Your task to perform on an android device: Install the Wikipedia app Image 0: 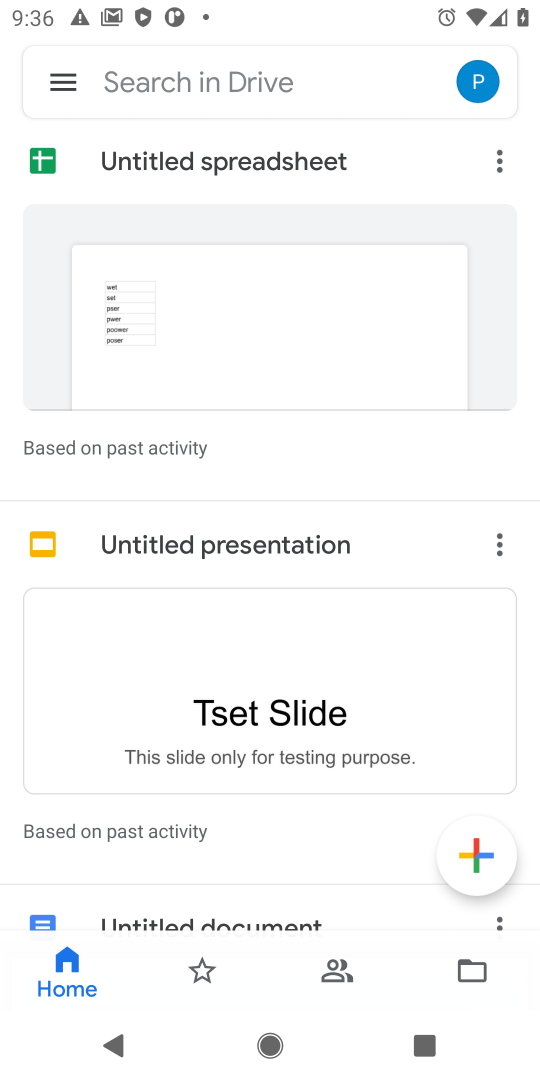
Step 0: press home button
Your task to perform on an android device: Install the Wikipedia app Image 1: 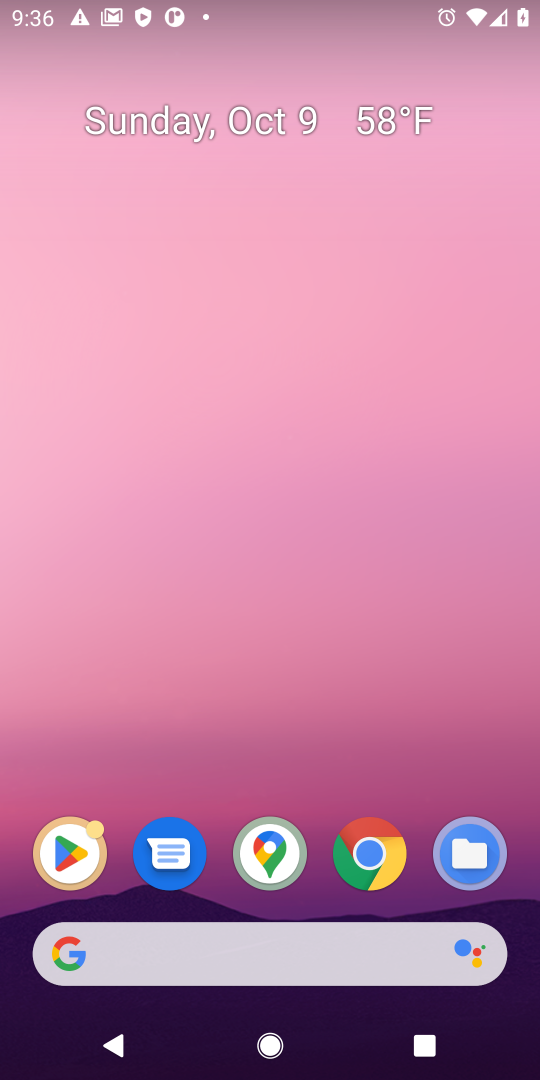
Step 1: click (379, 862)
Your task to perform on an android device: Install the Wikipedia app Image 2: 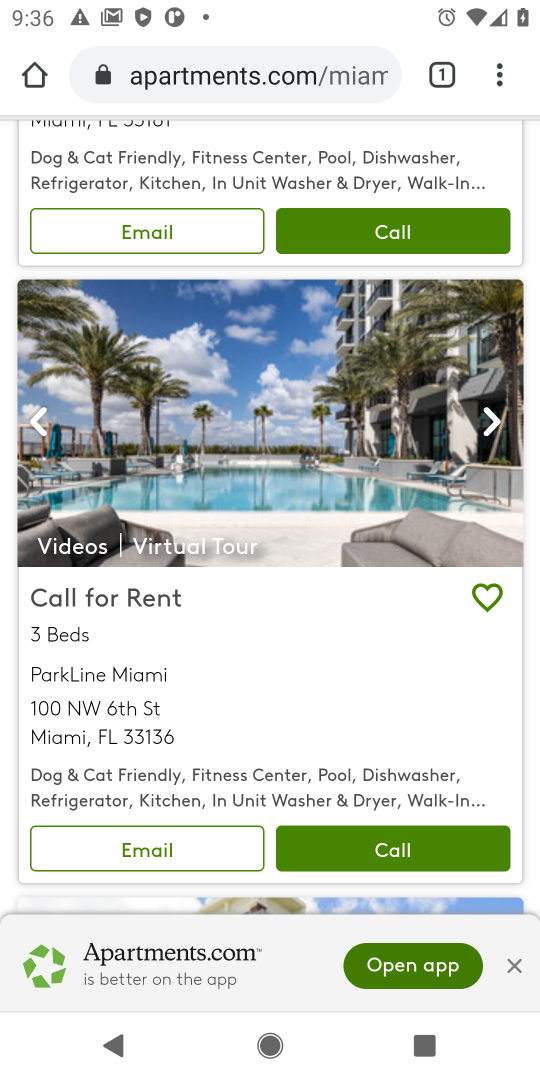
Step 2: press home button
Your task to perform on an android device: Install the Wikipedia app Image 3: 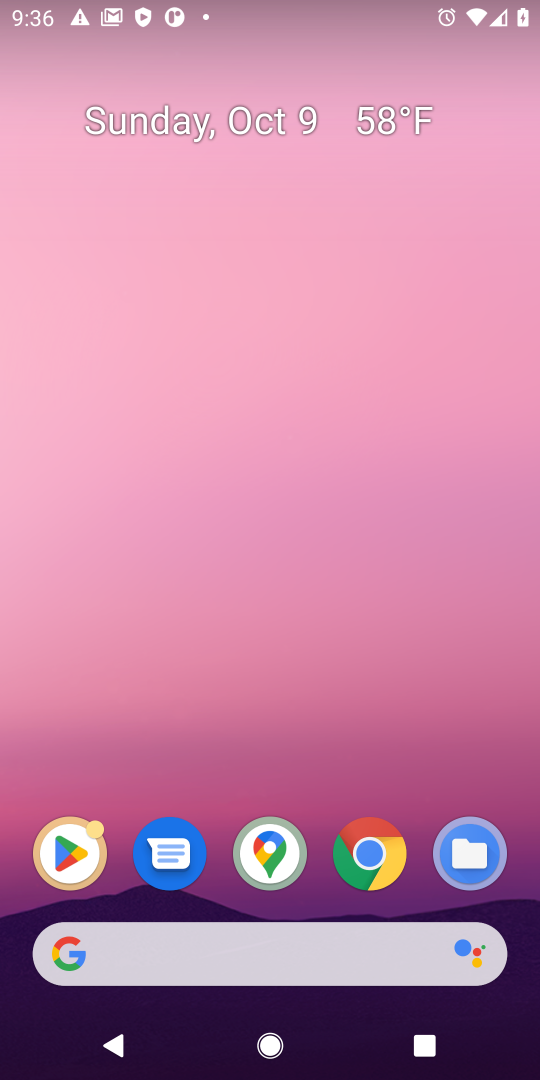
Step 3: drag from (333, 808) to (316, 267)
Your task to perform on an android device: Install the Wikipedia app Image 4: 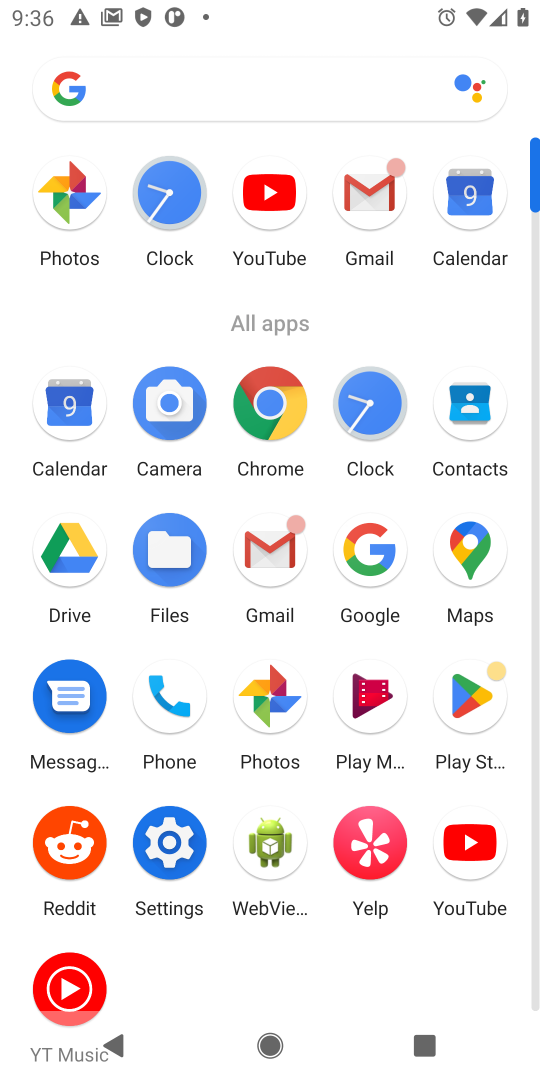
Step 4: click (489, 707)
Your task to perform on an android device: Install the Wikipedia app Image 5: 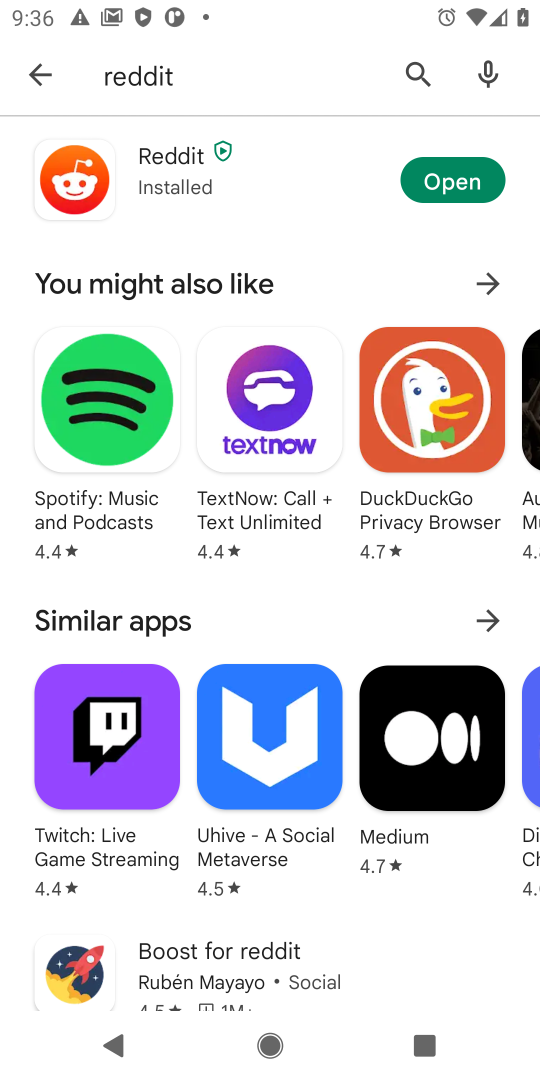
Step 5: click (418, 59)
Your task to perform on an android device: Install the Wikipedia app Image 6: 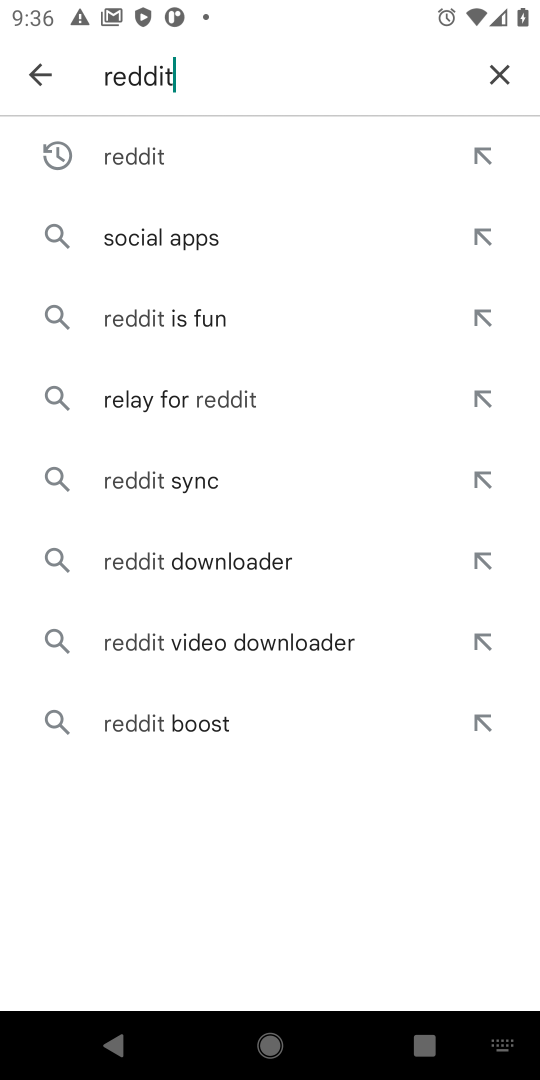
Step 6: click (505, 75)
Your task to perform on an android device: Install the Wikipedia app Image 7: 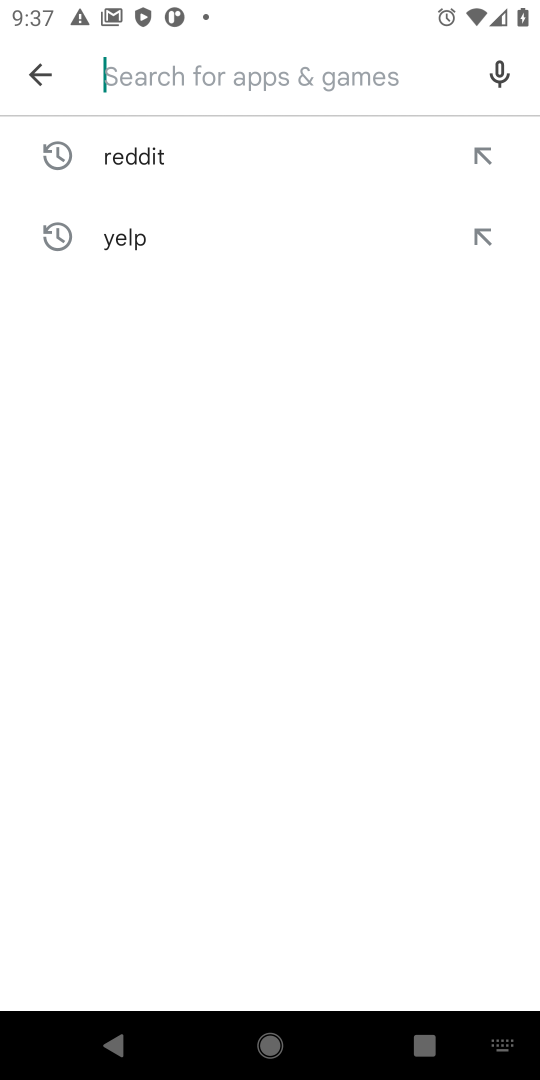
Step 7: type "wikipedia"
Your task to perform on an android device: Install the Wikipedia app Image 8: 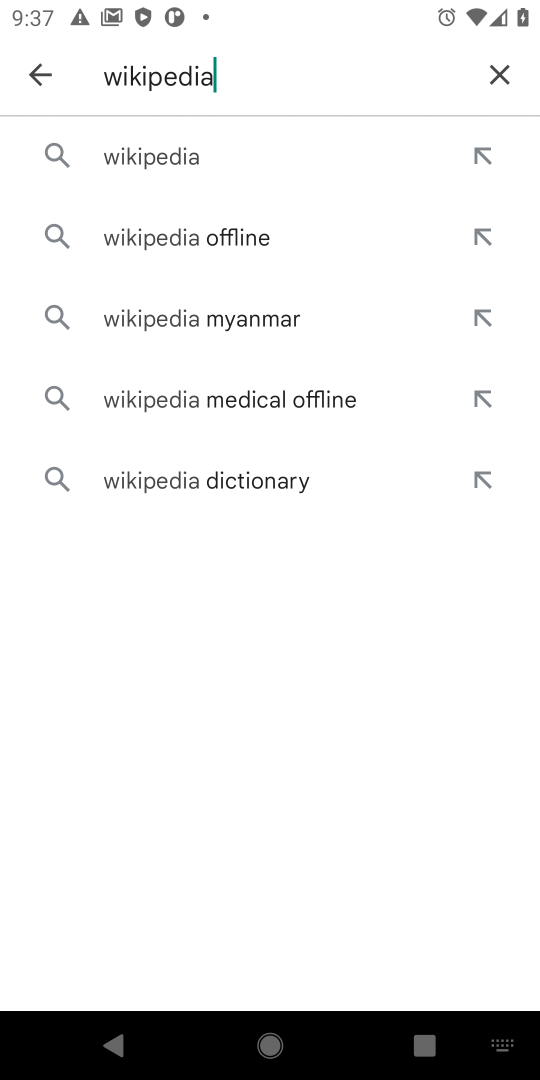
Step 8: click (211, 154)
Your task to perform on an android device: Install the Wikipedia app Image 9: 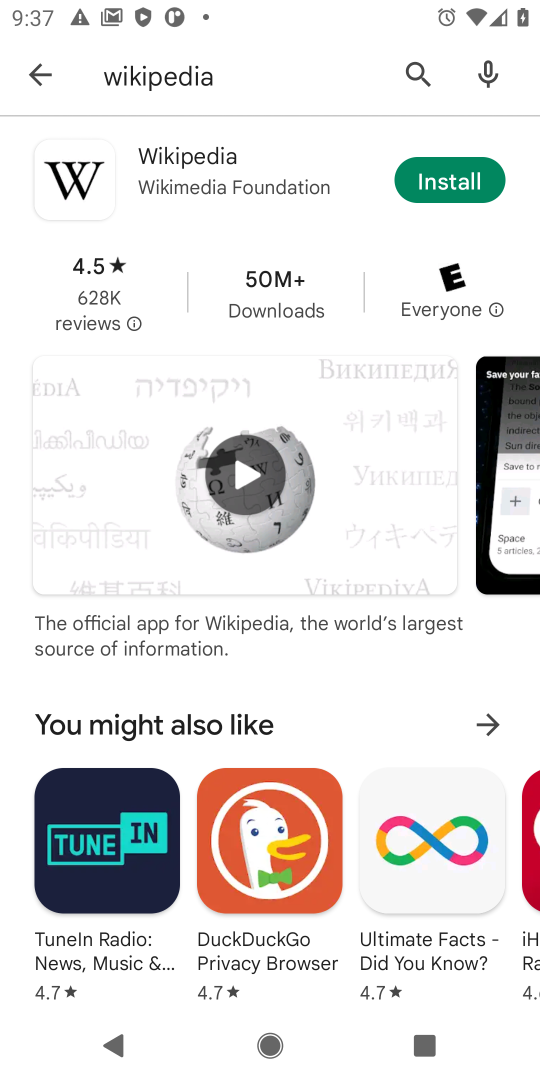
Step 9: click (435, 177)
Your task to perform on an android device: Install the Wikipedia app Image 10: 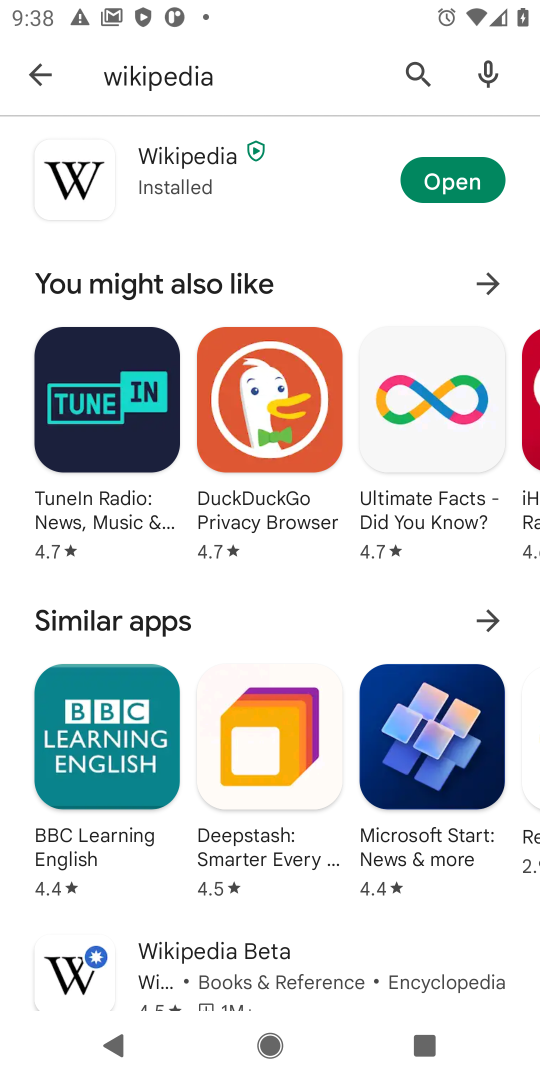
Step 10: click (449, 193)
Your task to perform on an android device: Install the Wikipedia app Image 11: 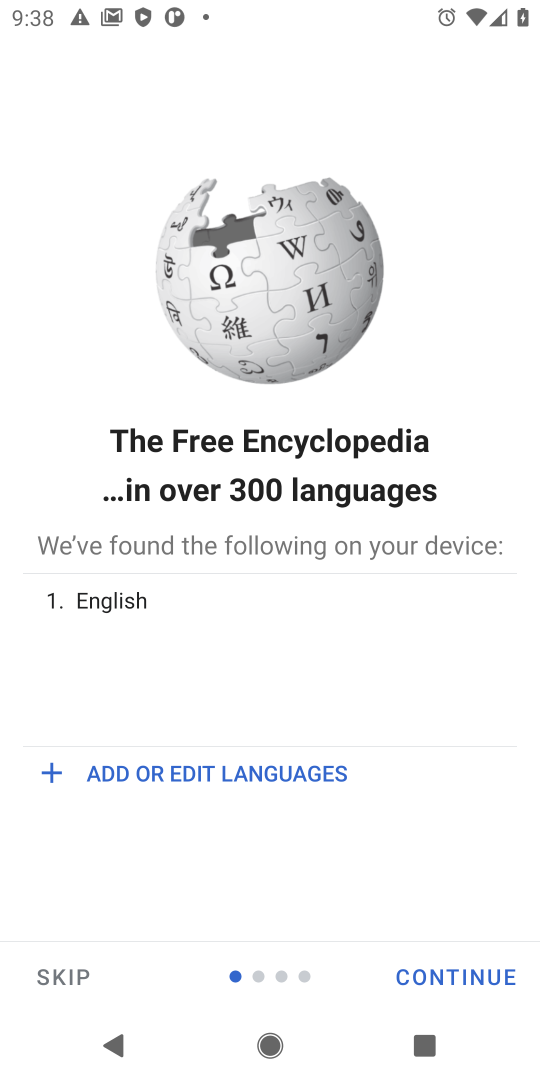
Step 11: task complete